Your task to perform on an android device: Go to privacy settings Image 0: 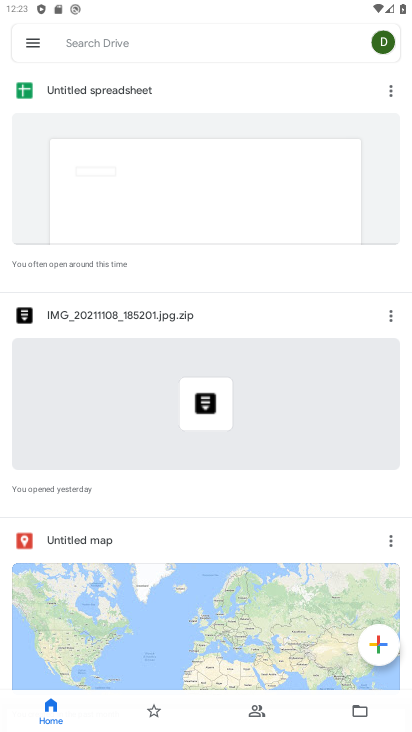
Step 0: press home button
Your task to perform on an android device: Go to privacy settings Image 1: 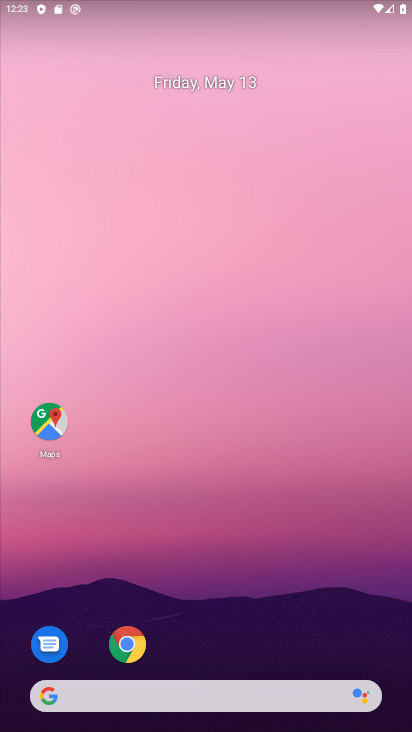
Step 1: drag from (251, 609) to (241, 69)
Your task to perform on an android device: Go to privacy settings Image 2: 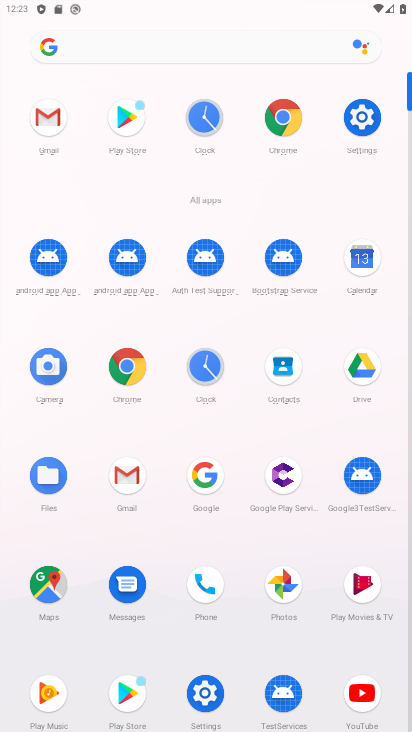
Step 2: click (352, 120)
Your task to perform on an android device: Go to privacy settings Image 3: 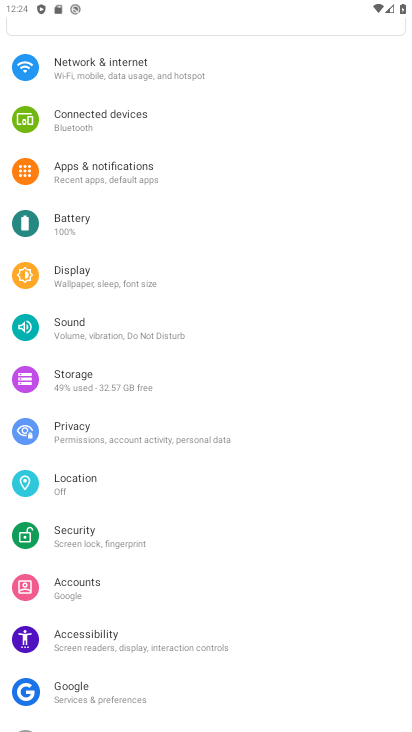
Step 3: click (111, 431)
Your task to perform on an android device: Go to privacy settings Image 4: 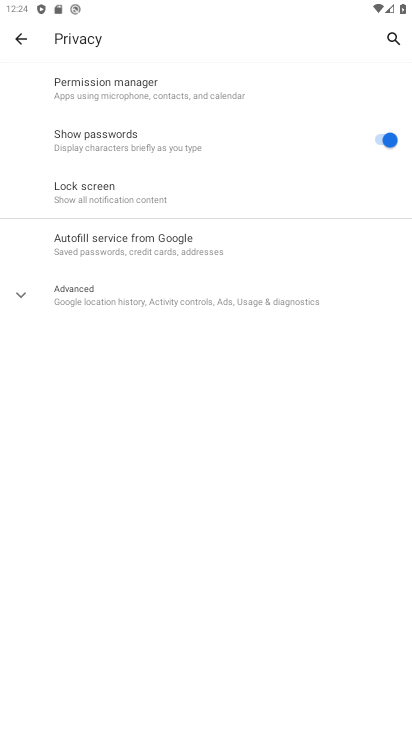
Step 4: task complete